Your task to perform on an android device: clear all cookies in the chrome app Image 0: 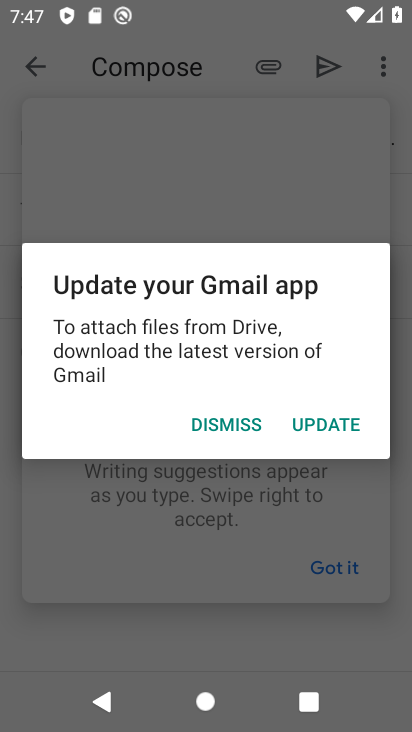
Step 0: press home button
Your task to perform on an android device: clear all cookies in the chrome app Image 1: 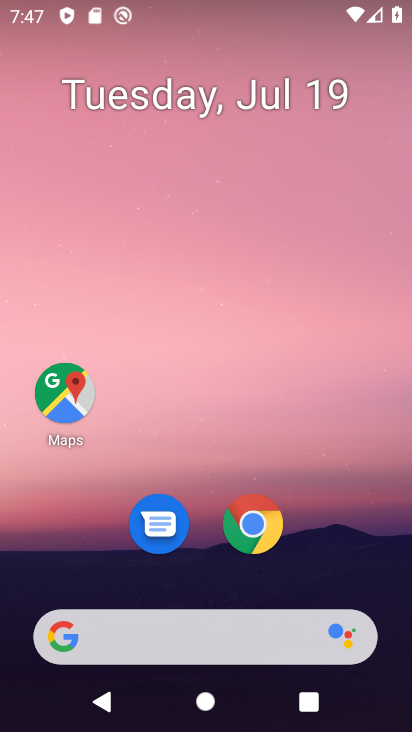
Step 1: click (255, 528)
Your task to perform on an android device: clear all cookies in the chrome app Image 2: 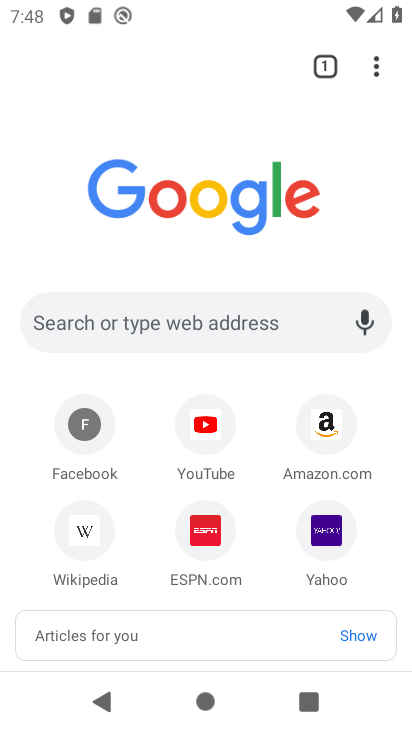
Step 2: click (371, 66)
Your task to perform on an android device: clear all cookies in the chrome app Image 3: 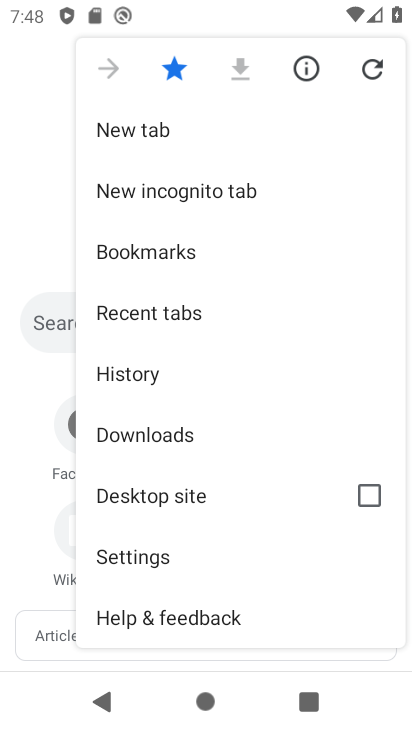
Step 3: click (161, 557)
Your task to perform on an android device: clear all cookies in the chrome app Image 4: 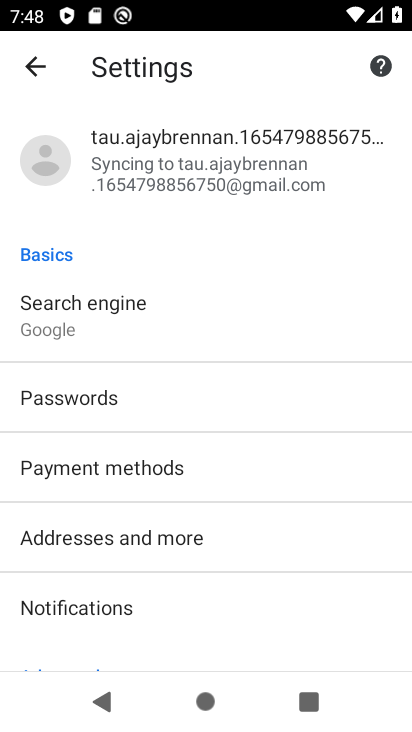
Step 4: drag from (234, 549) to (249, 330)
Your task to perform on an android device: clear all cookies in the chrome app Image 5: 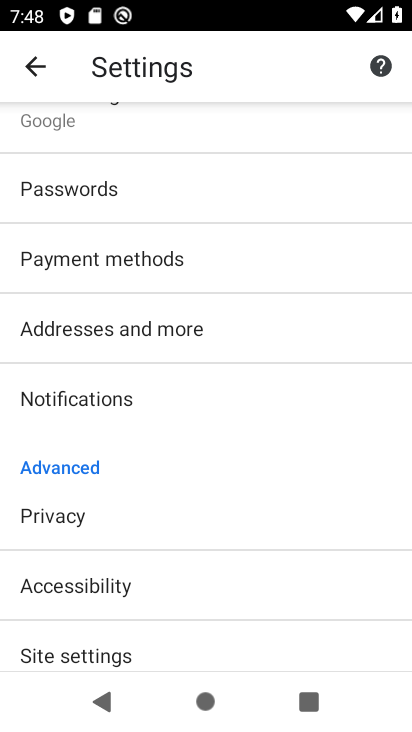
Step 5: click (92, 507)
Your task to perform on an android device: clear all cookies in the chrome app Image 6: 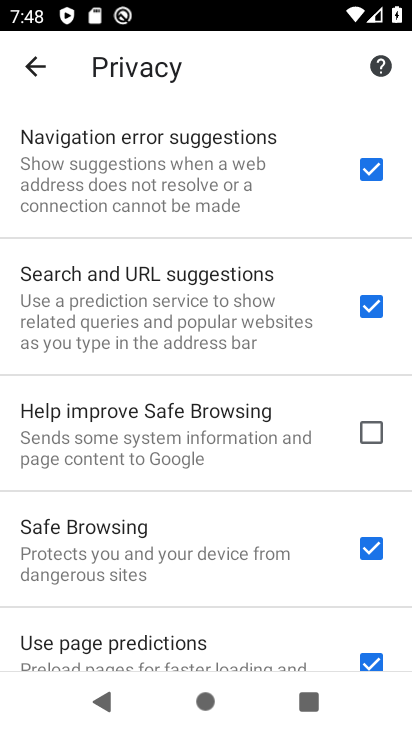
Step 6: drag from (235, 581) to (243, 165)
Your task to perform on an android device: clear all cookies in the chrome app Image 7: 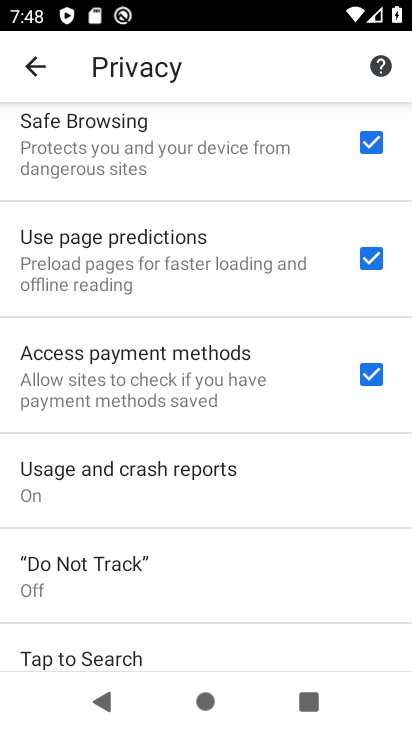
Step 7: drag from (229, 542) to (229, 191)
Your task to perform on an android device: clear all cookies in the chrome app Image 8: 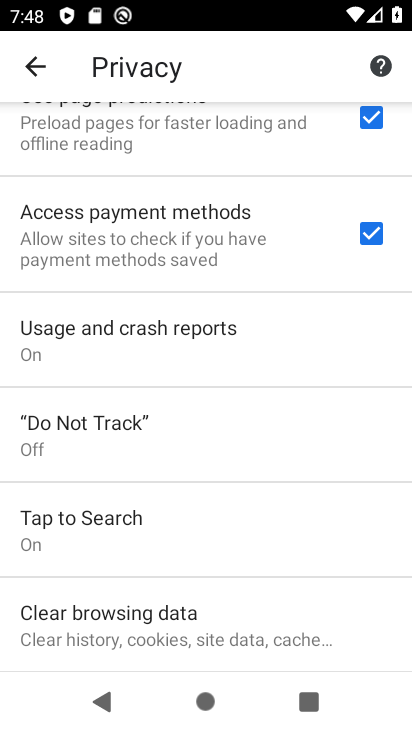
Step 8: click (198, 625)
Your task to perform on an android device: clear all cookies in the chrome app Image 9: 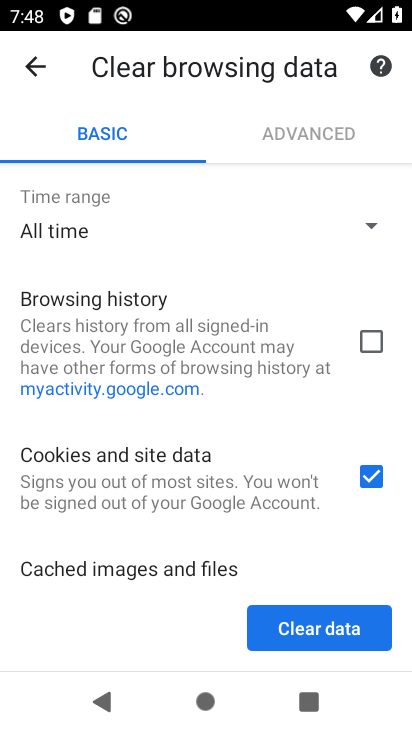
Step 9: drag from (260, 448) to (267, 305)
Your task to perform on an android device: clear all cookies in the chrome app Image 10: 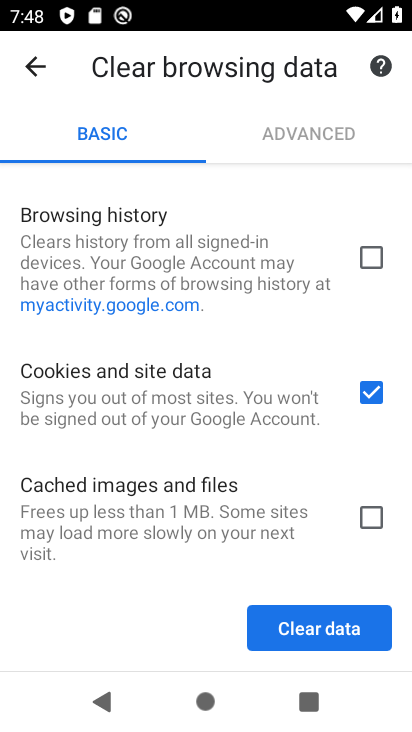
Step 10: click (303, 630)
Your task to perform on an android device: clear all cookies in the chrome app Image 11: 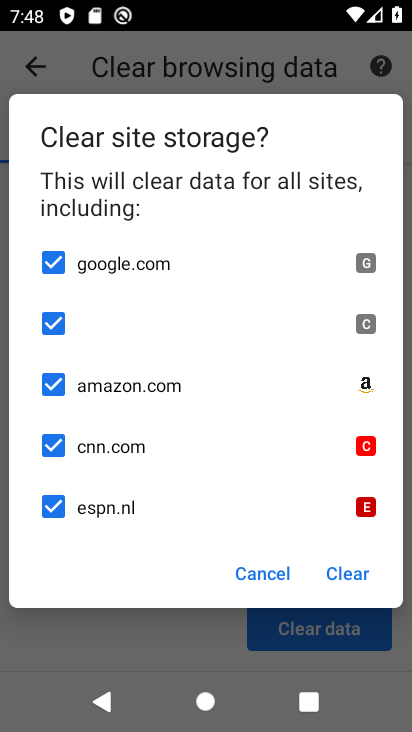
Step 11: click (345, 571)
Your task to perform on an android device: clear all cookies in the chrome app Image 12: 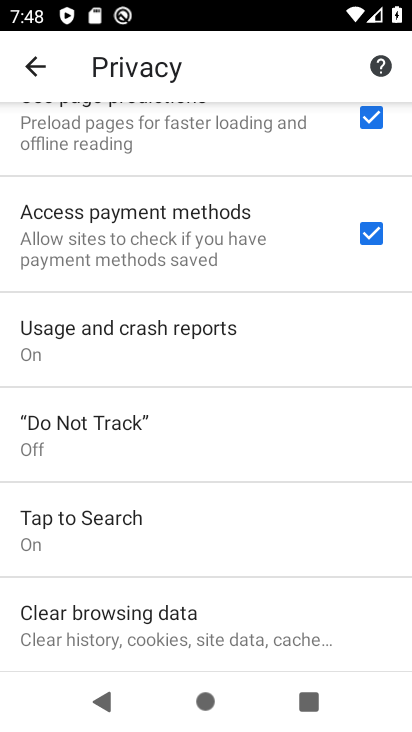
Step 12: task complete